Your task to perform on an android device: find which apps use the phone's location Image 0: 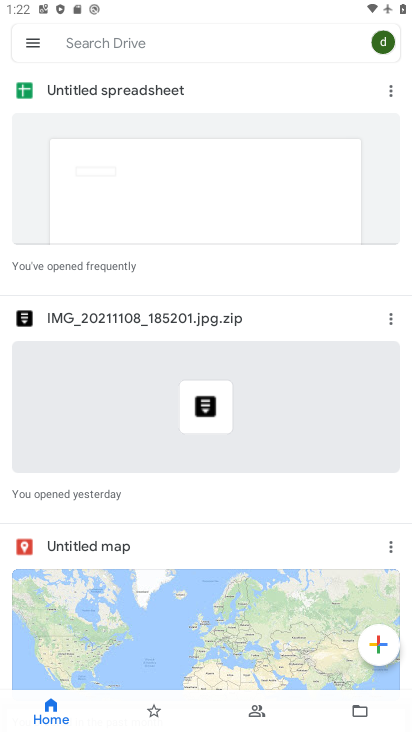
Step 0: press home button
Your task to perform on an android device: find which apps use the phone's location Image 1: 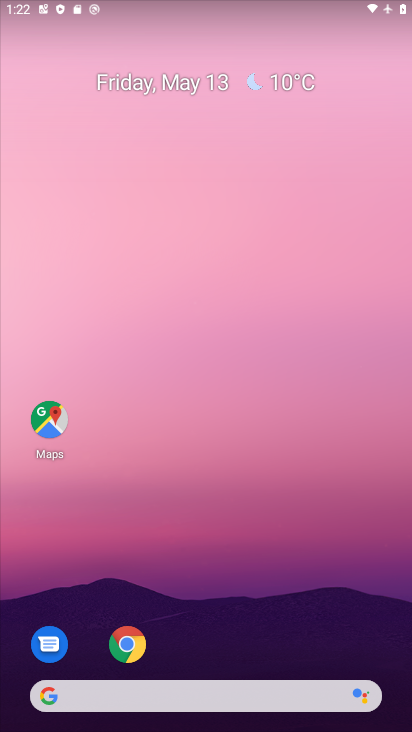
Step 1: drag from (237, 726) to (235, 135)
Your task to perform on an android device: find which apps use the phone's location Image 2: 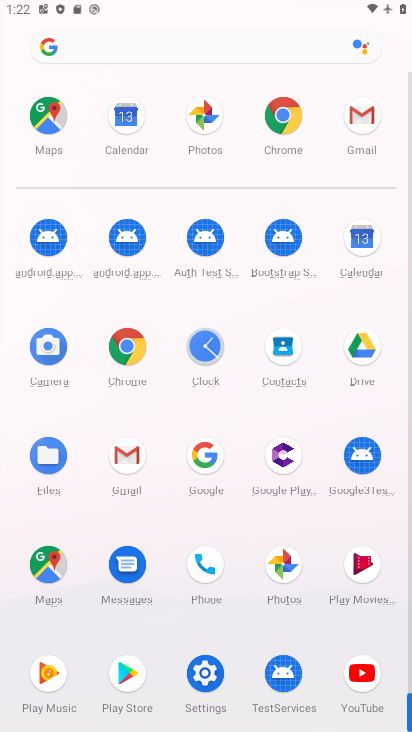
Step 2: click (205, 670)
Your task to perform on an android device: find which apps use the phone's location Image 3: 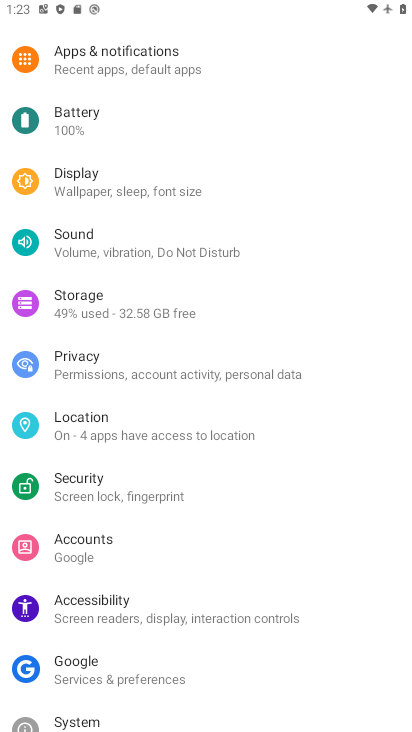
Step 3: click (93, 422)
Your task to perform on an android device: find which apps use the phone's location Image 4: 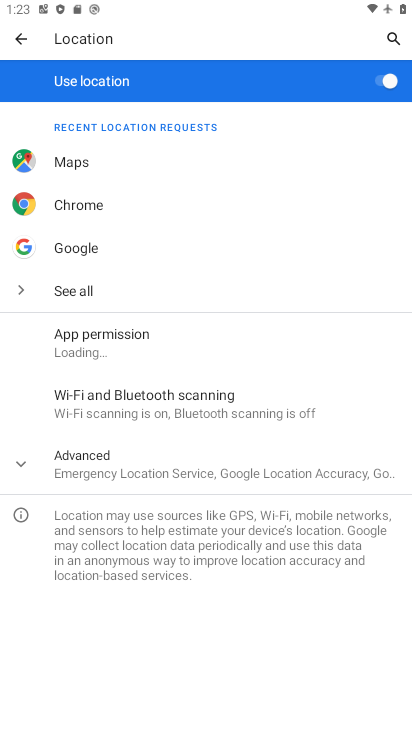
Step 4: click (92, 345)
Your task to perform on an android device: find which apps use the phone's location Image 5: 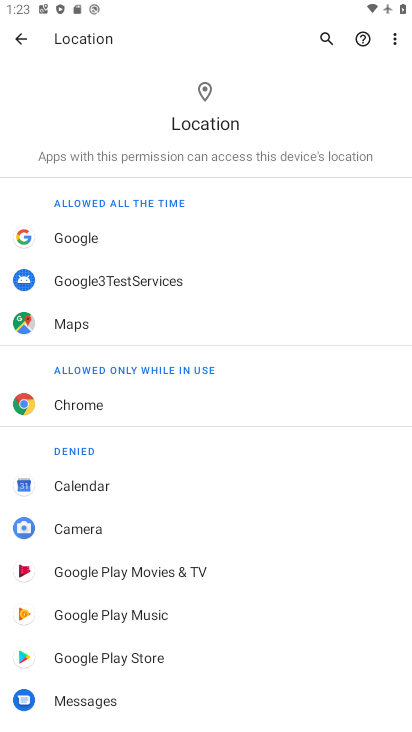
Step 5: task complete